Your task to perform on an android device: turn on notifications settings in the gmail app Image 0: 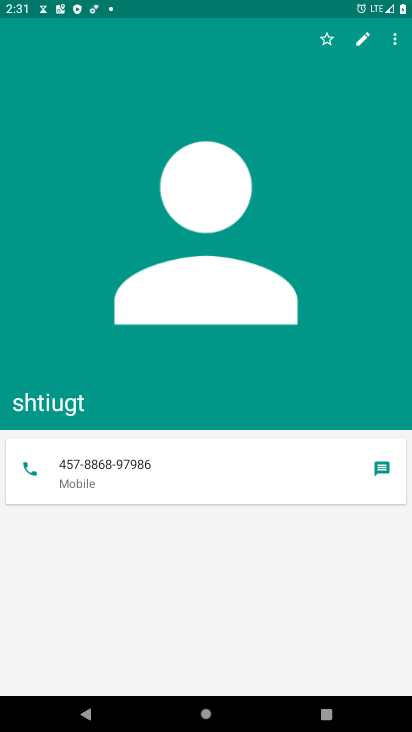
Step 0: press home button
Your task to perform on an android device: turn on notifications settings in the gmail app Image 1: 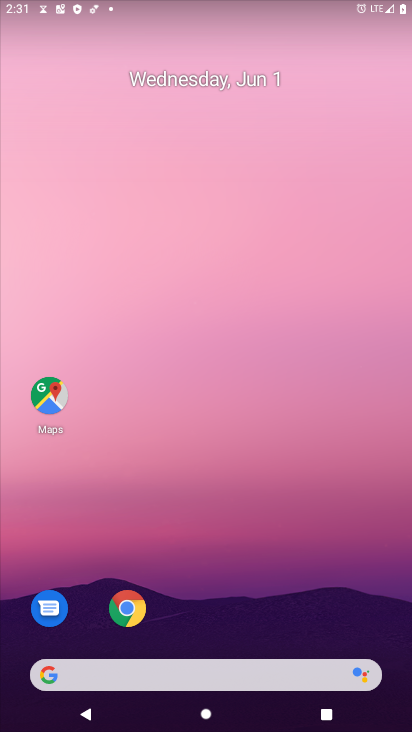
Step 1: drag from (276, 559) to (242, 140)
Your task to perform on an android device: turn on notifications settings in the gmail app Image 2: 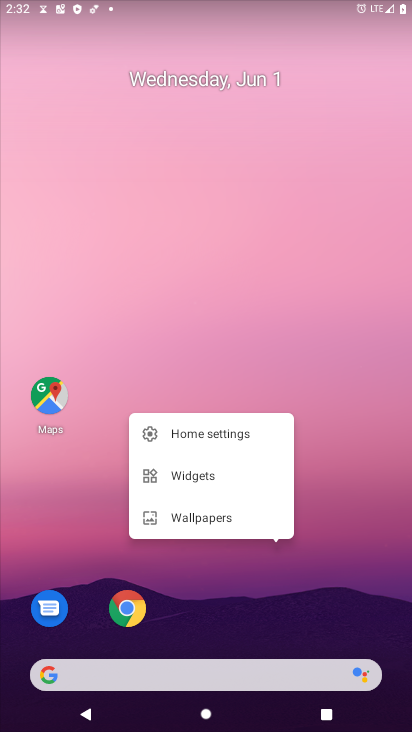
Step 2: click (245, 146)
Your task to perform on an android device: turn on notifications settings in the gmail app Image 3: 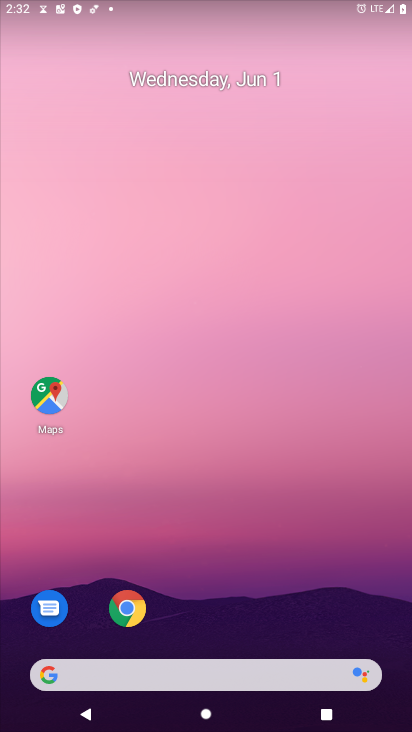
Step 3: drag from (222, 623) to (263, 42)
Your task to perform on an android device: turn on notifications settings in the gmail app Image 4: 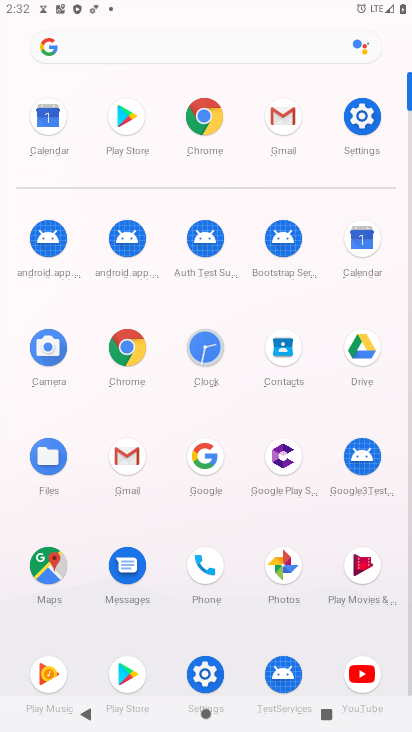
Step 4: click (273, 115)
Your task to perform on an android device: turn on notifications settings in the gmail app Image 5: 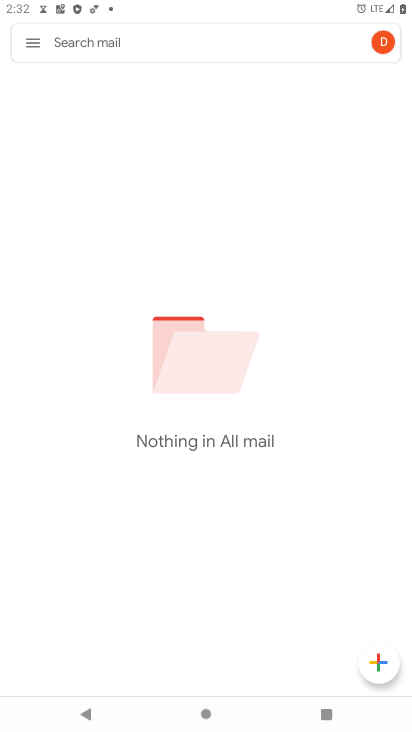
Step 5: click (39, 47)
Your task to perform on an android device: turn on notifications settings in the gmail app Image 6: 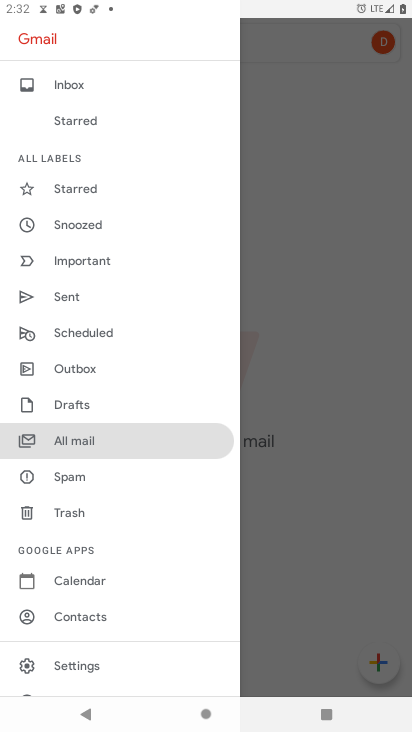
Step 6: click (67, 665)
Your task to perform on an android device: turn on notifications settings in the gmail app Image 7: 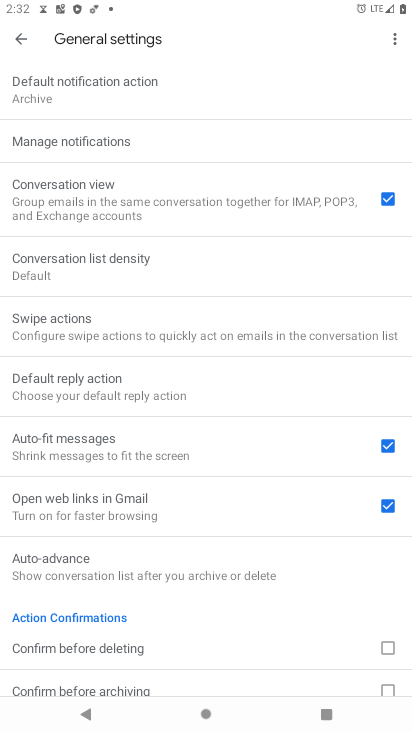
Step 7: click (165, 141)
Your task to perform on an android device: turn on notifications settings in the gmail app Image 8: 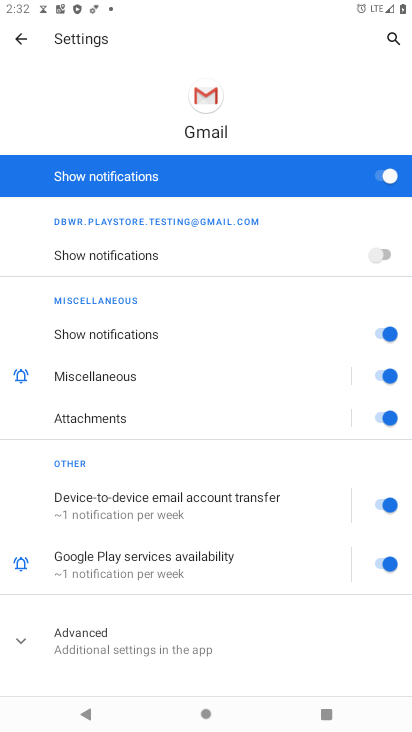
Step 8: click (374, 251)
Your task to perform on an android device: turn on notifications settings in the gmail app Image 9: 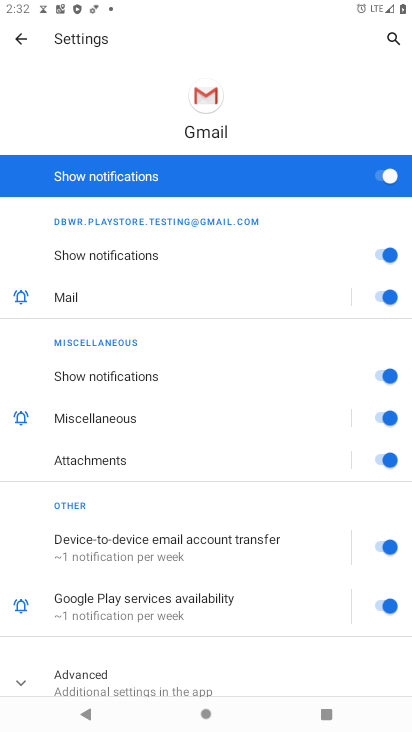
Step 9: task complete